Your task to perform on an android device: Go to Maps Image 0: 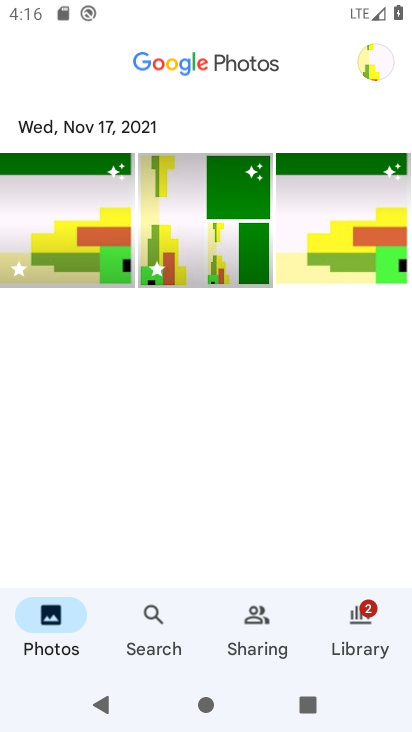
Step 0: press home button
Your task to perform on an android device: Go to Maps Image 1: 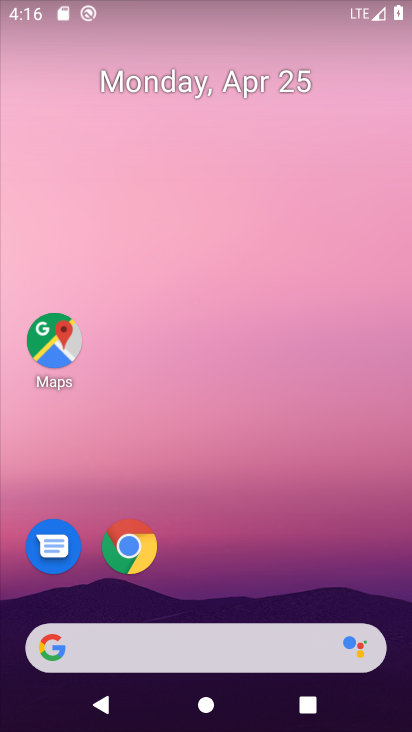
Step 1: click (69, 353)
Your task to perform on an android device: Go to Maps Image 2: 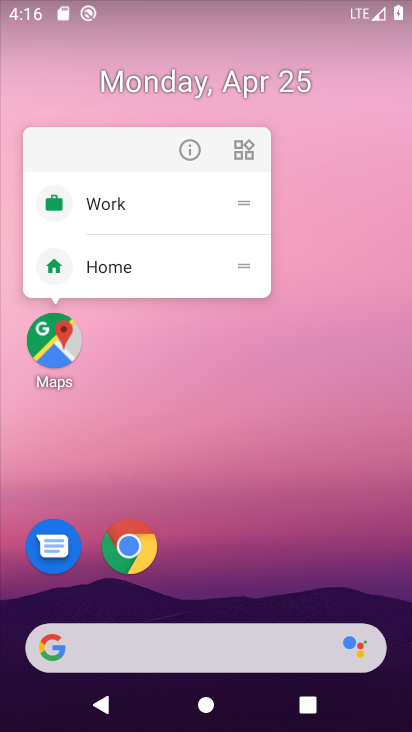
Step 2: click (69, 353)
Your task to perform on an android device: Go to Maps Image 3: 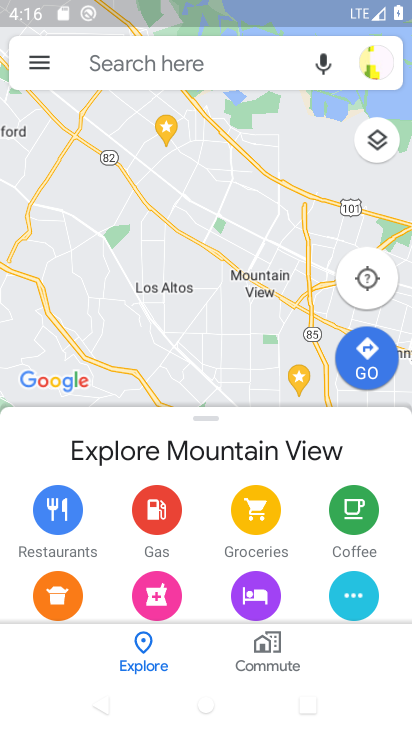
Step 3: task complete